Your task to perform on an android device: clear history in the chrome app Image 0: 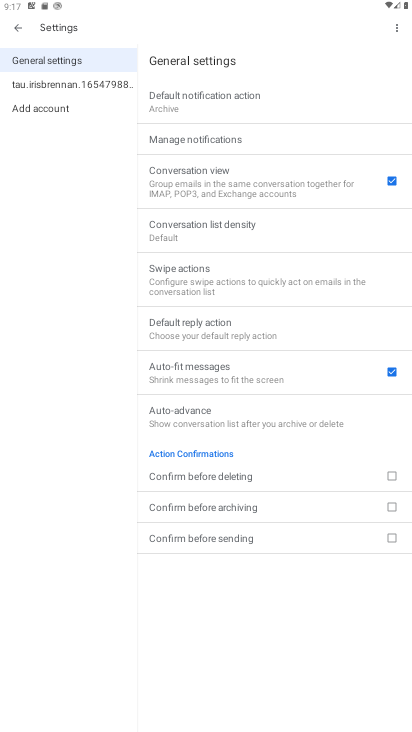
Step 0: press home button
Your task to perform on an android device: clear history in the chrome app Image 1: 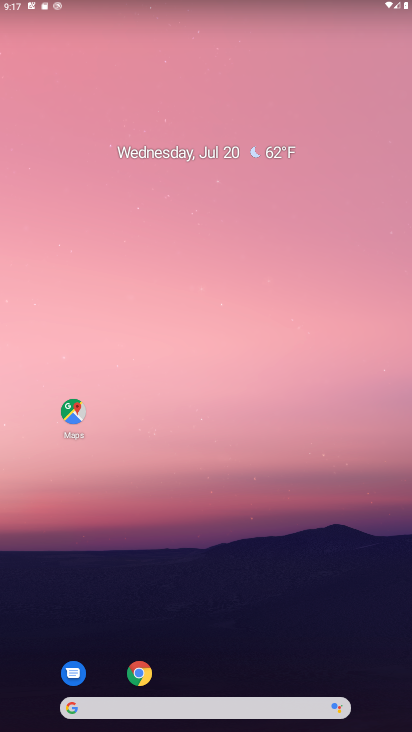
Step 1: click (130, 668)
Your task to perform on an android device: clear history in the chrome app Image 2: 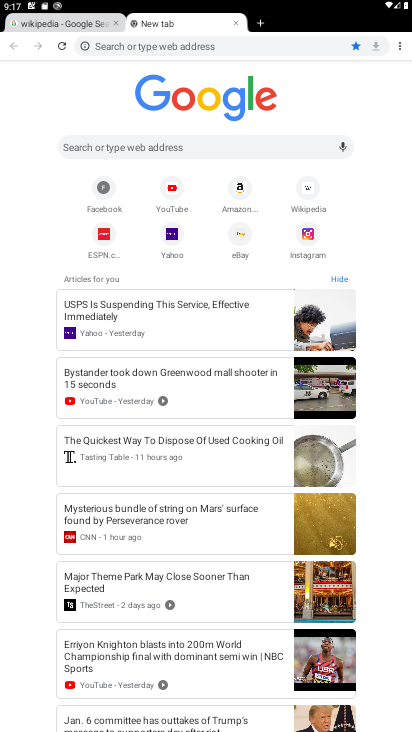
Step 2: click (396, 44)
Your task to perform on an android device: clear history in the chrome app Image 3: 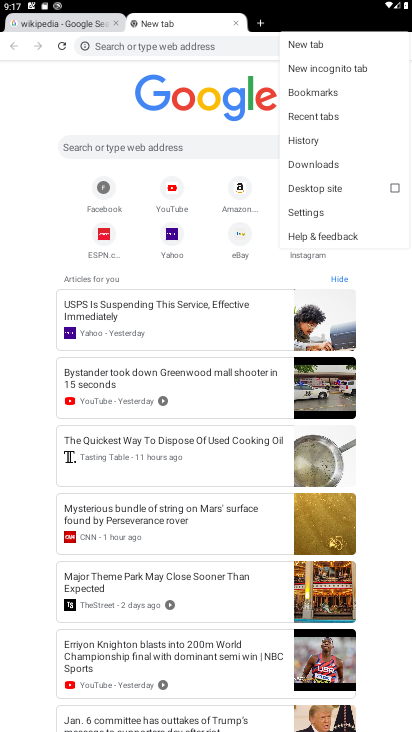
Step 3: click (308, 135)
Your task to perform on an android device: clear history in the chrome app Image 4: 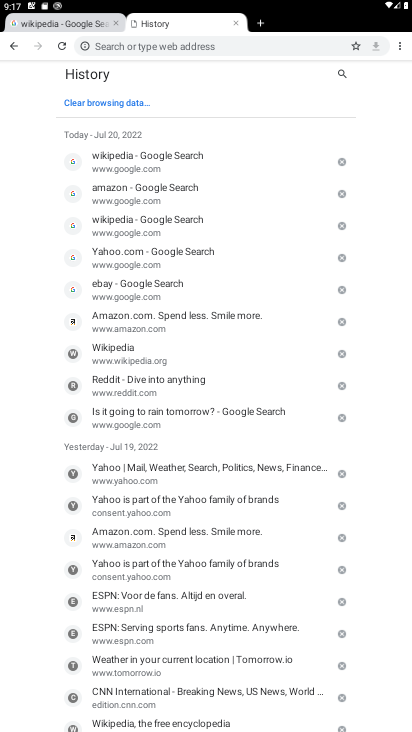
Step 4: click (94, 97)
Your task to perform on an android device: clear history in the chrome app Image 5: 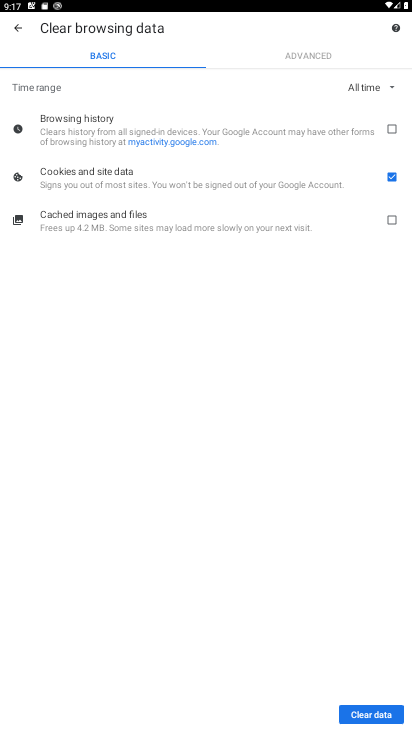
Step 5: click (395, 221)
Your task to perform on an android device: clear history in the chrome app Image 6: 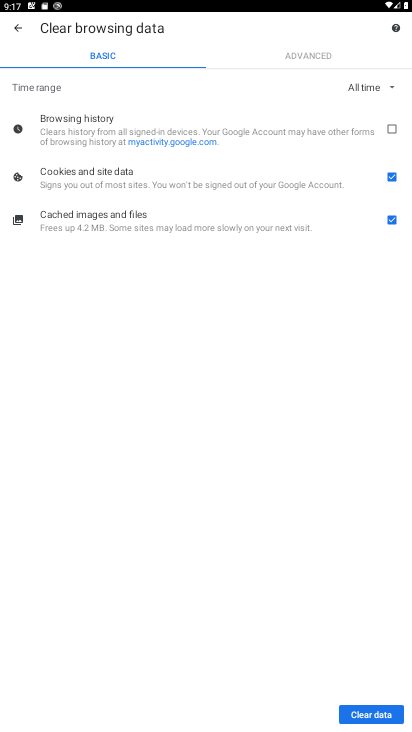
Step 6: click (386, 128)
Your task to perform on an android device: clear history in the chrome app Image 7: 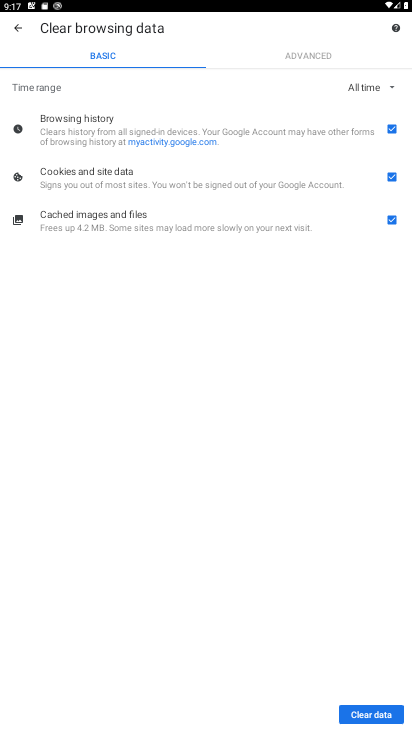
Step 7: click (374, 716)
Your task to perform on an android device: clear history in the chrome app Image 8: 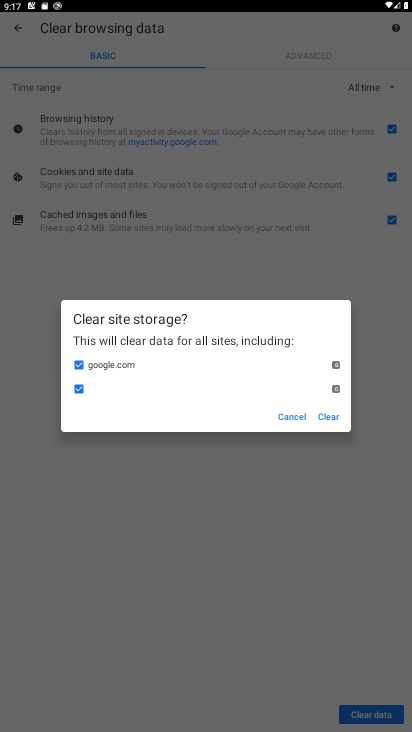
Step 8: click (324, 414)
Your task to perform on an android device: clear history in the chrome app Image 9: 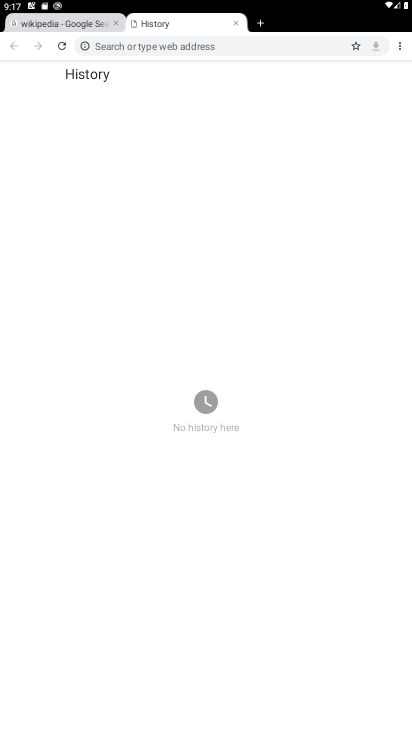
Step 9: task complete